Your task to perform on an android device: check the backup settings in the google photos Image 0: 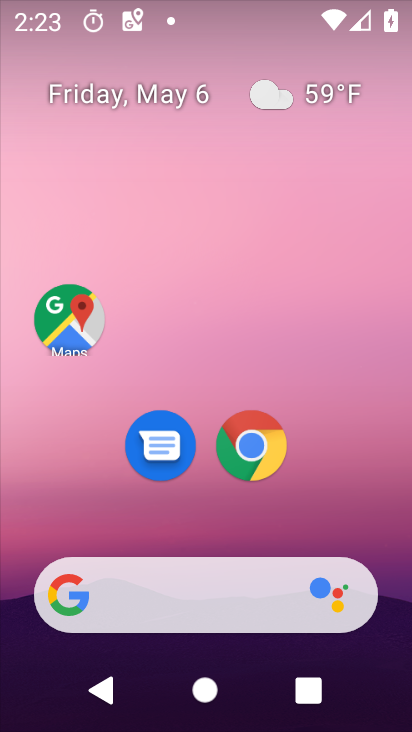
Step 0: click (210, 135)
Your task to perform on an android device: check the backup settings in the google photos Image 1: 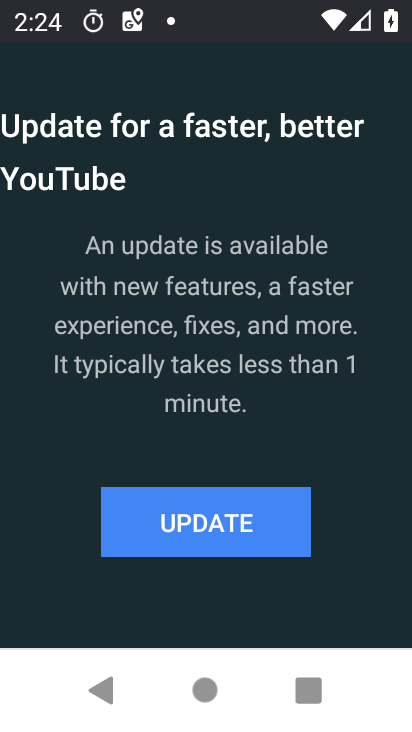
Step 1: press home button
Your task to perform on an android device: check the backup settings in the google photos Image 2: 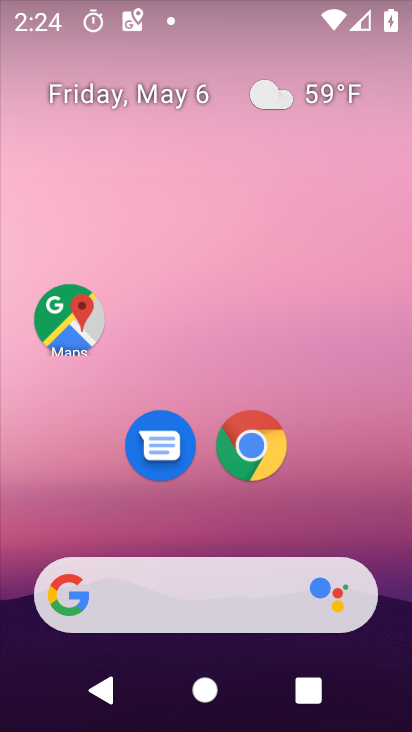
Step 2: drag from (346, 473) to (152, 1)
Your task to perform on an android device: check the backup settings in the google photos Image 3: 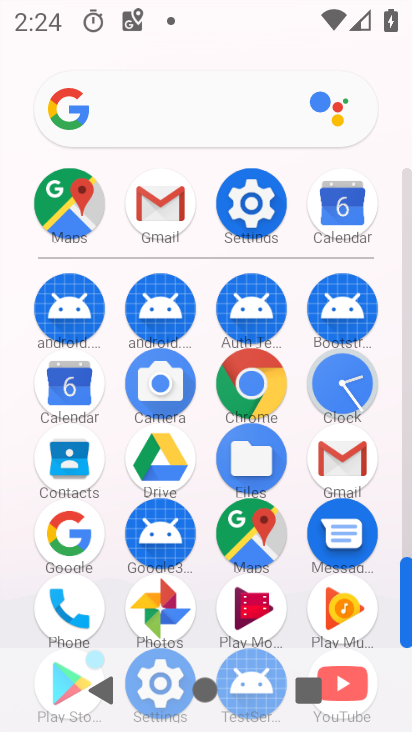
Step 3: click (165, 598)
Your task to perform on an android device: check the backup settings in the google photos Image 4: 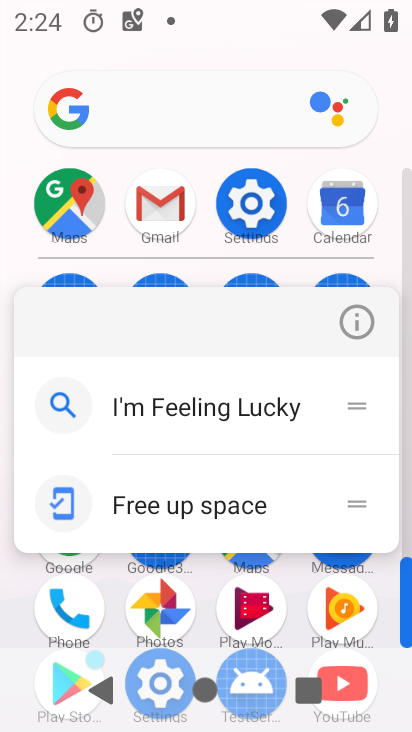
Step 4: click (156, 606)
Your task to perform on an android device: check the backup settings in the google photos Image 5: 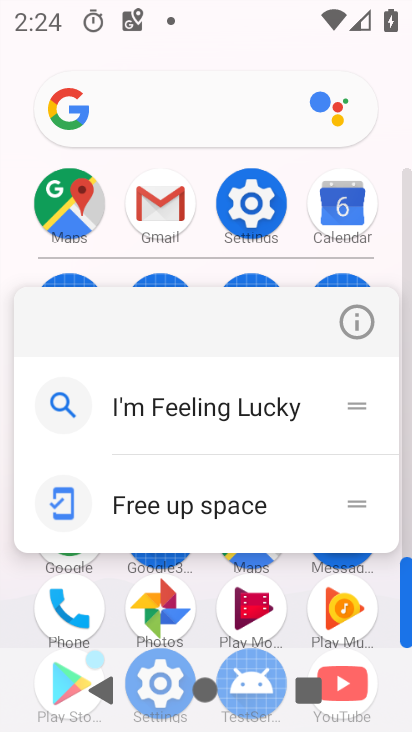
Step 5: click (156, 606)
Your task to perform on an android device: check the backup settings in the google photos Image 6: 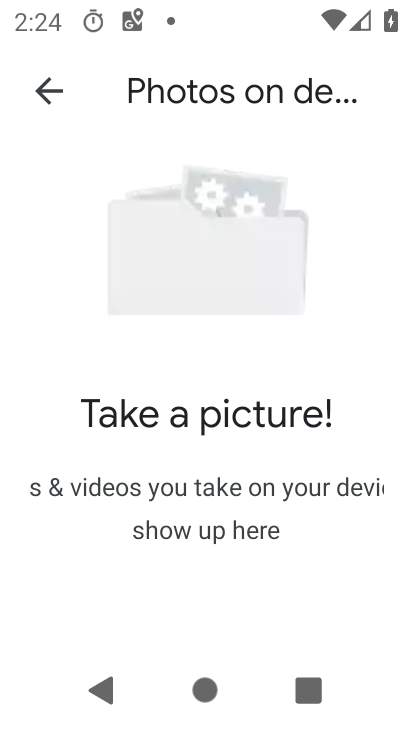
Step 6: click (166, 611)
Your task to perform on an android device: check the backup settings in the google photos Image 7: 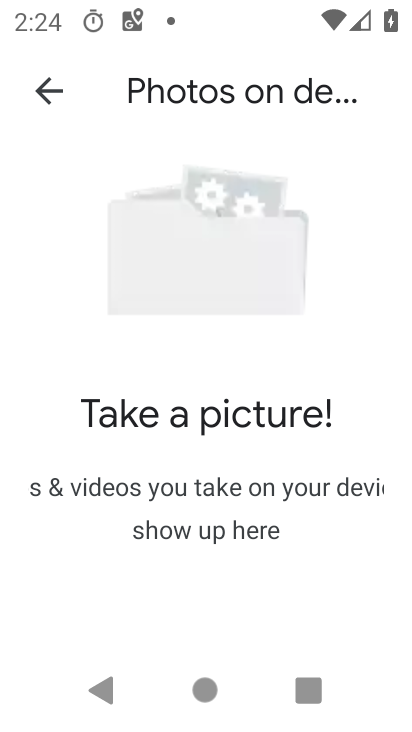
Step 7: click (46, 92)
Your task to perform on an android device: check the backup settings in the google photos Image 8: 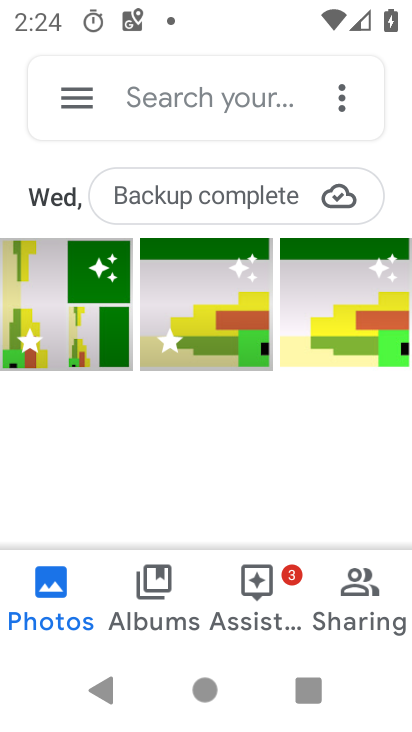
Step 8: click (243, 198)
Your task to perform on an android device: check the backup settings in the google photos Image 9: 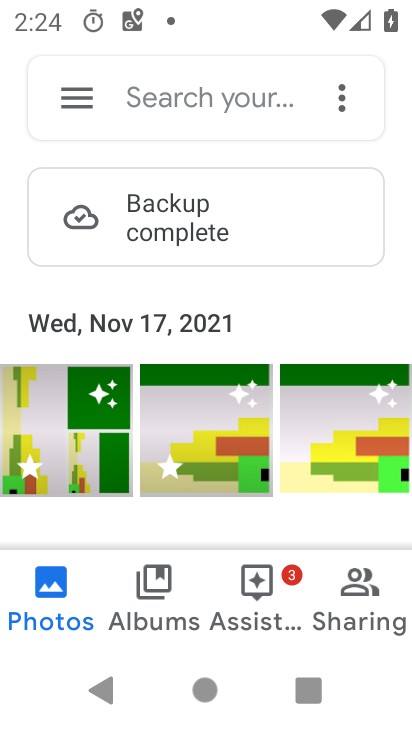
Step 9: task complete